Your task to perform on an android device: turn on location history Image 0: 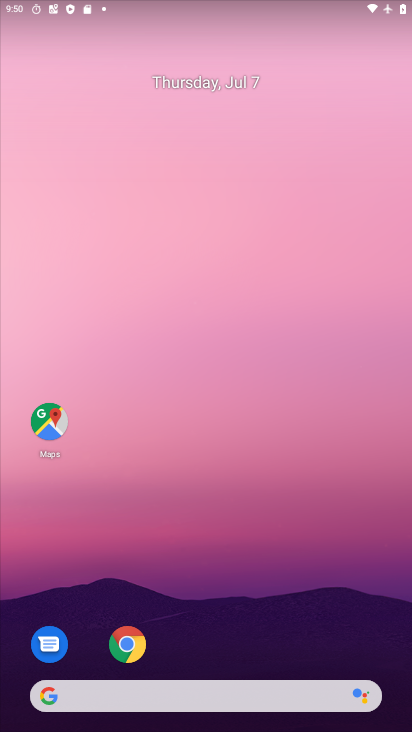
Step 0: drag from (294, 637) to (253, 117)
Your task to perform on an android device: turn on location history Image 1: 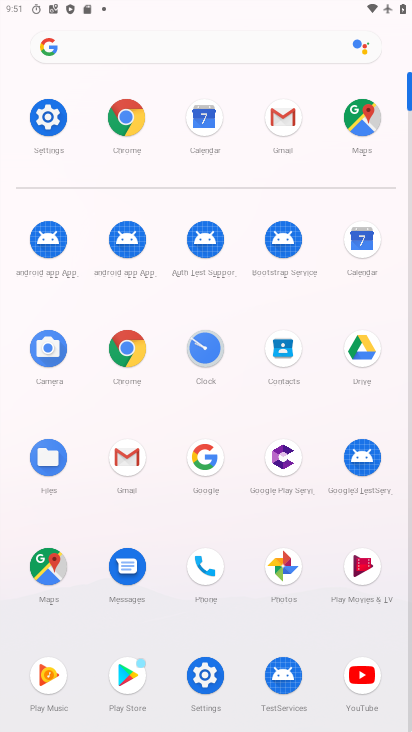
Step 1: click (45, 121)
Your task to perform on an android device: turn on location history Image 2: 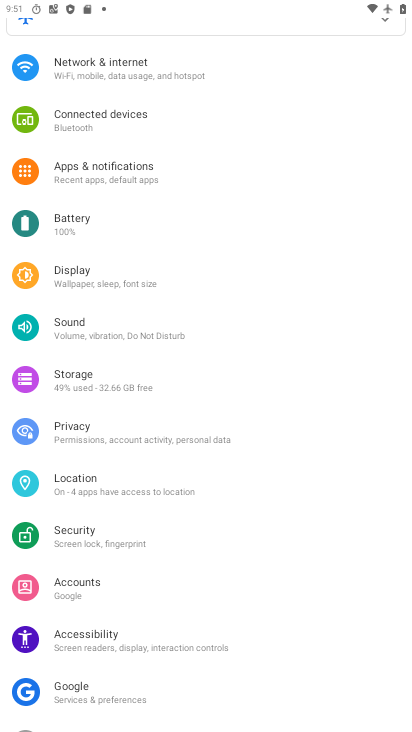
Step 2: click (134, 485)
Your task to perform on an android device: turn on location history Image 3: 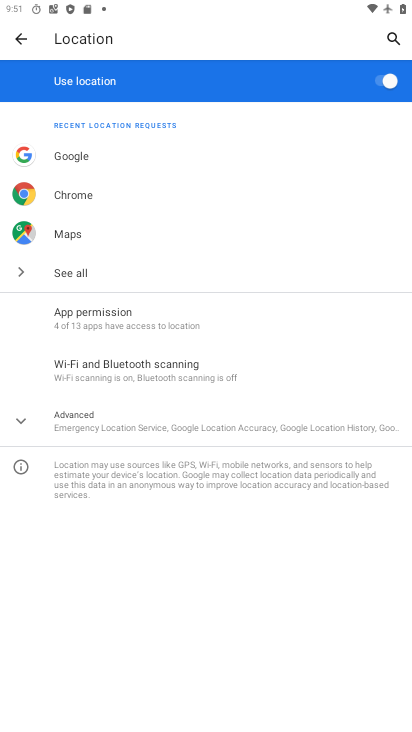
Step 3: click (87, 428)
Your task to perform on an android device: turn on location history Image 4: 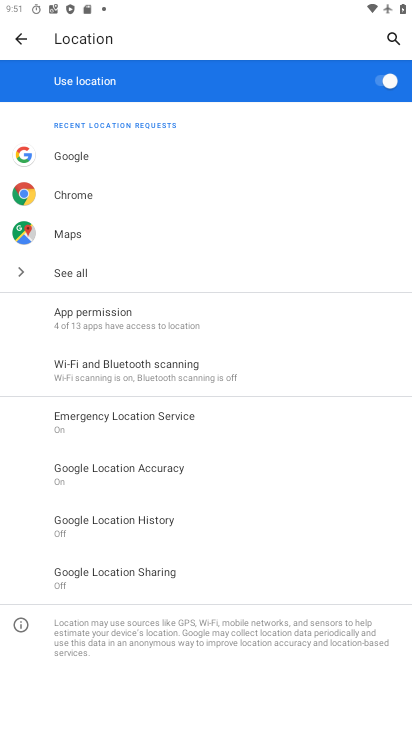
Step 4: click (159, 520)
Your task to perform on an android device: turn on location history Image 5: 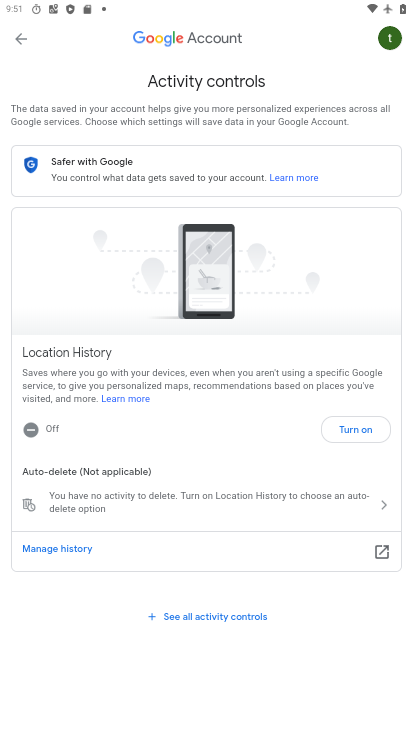
Step 5: click (365, 433)
Your task to perform on an android device: turn on location history Image 6: 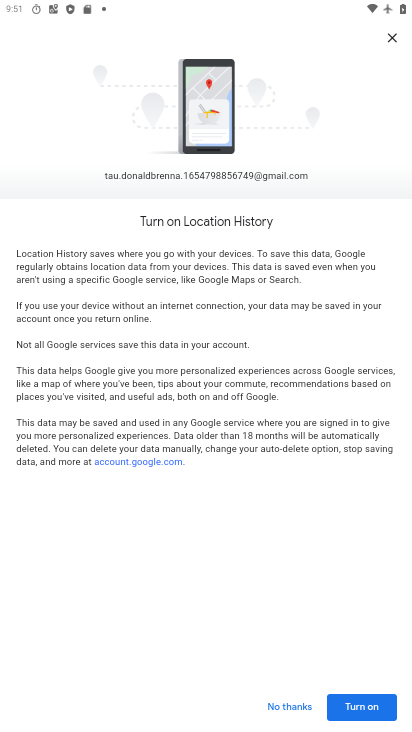
Step 6: click (365, 706)
Your task to perform on an android device: turn on location history Image 7: 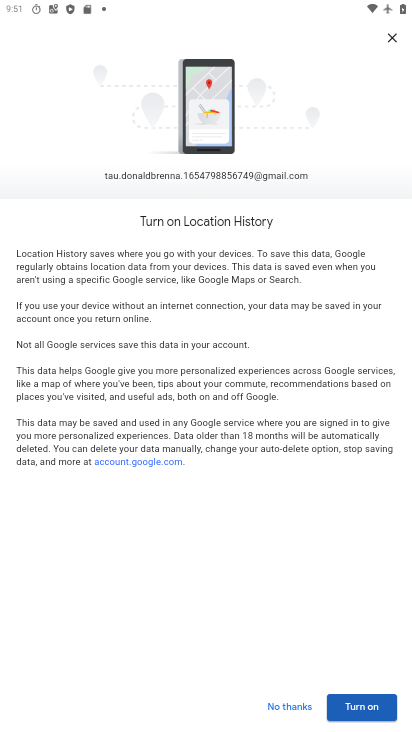
Step 7: click (357, 715)
Your task to perform on an android device: turn on location history Image 8: 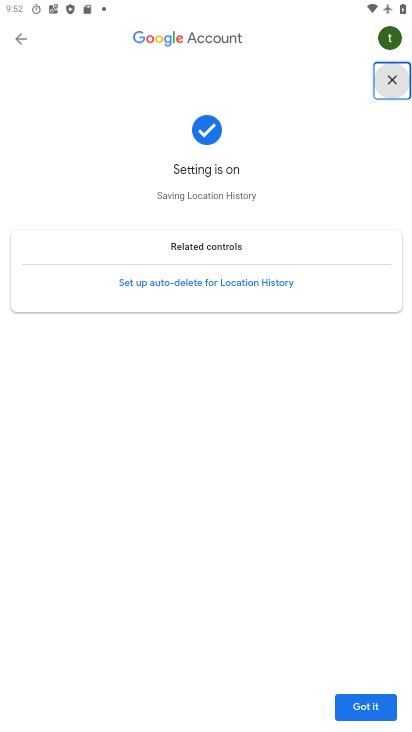
Step 8: click (369, 696)
Your task to perform on an android device: turn on location history Image 9: 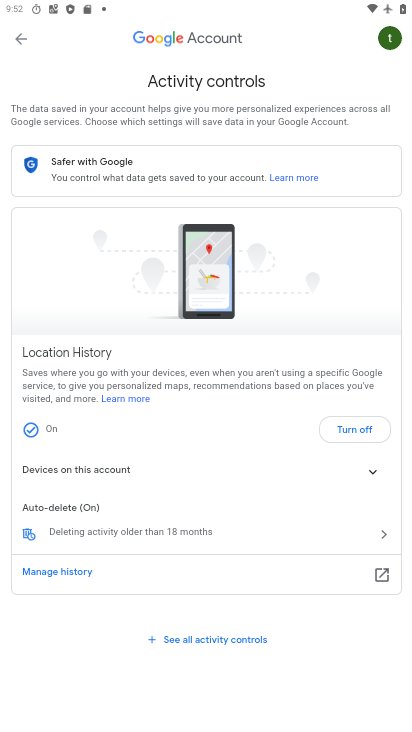
Step 9: task complete